Your task to perform on an android device: Turn off the flashlight Image 0: 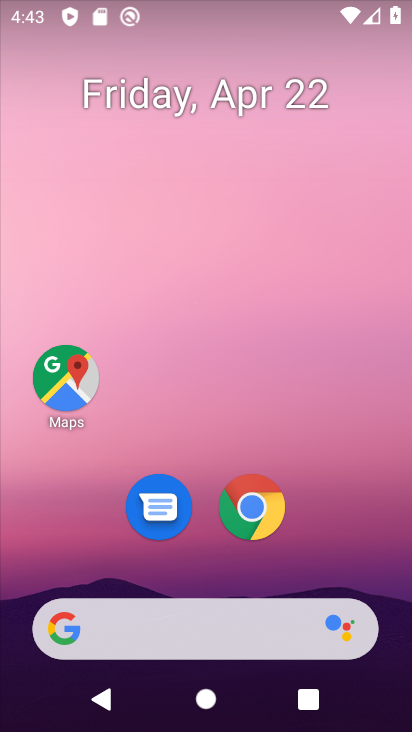
Step 0: drag from (173, 61) to (236, 474)
Your task to perform on an android device: Turn off the flashlight Image 1: 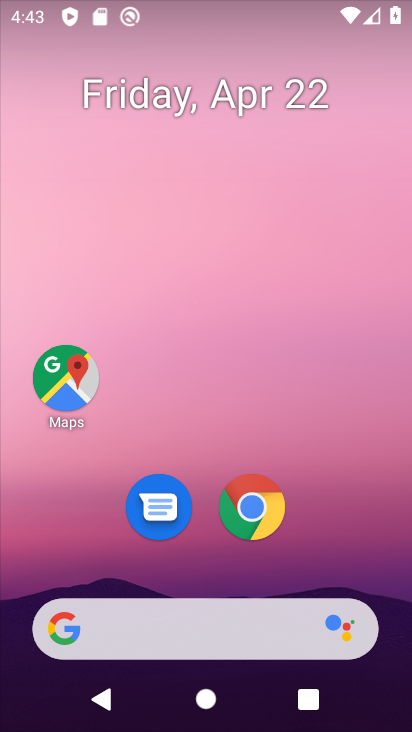
Step 1: task complete